Your task to perform on an android device: turn off javascript in the chrome app Image 0: 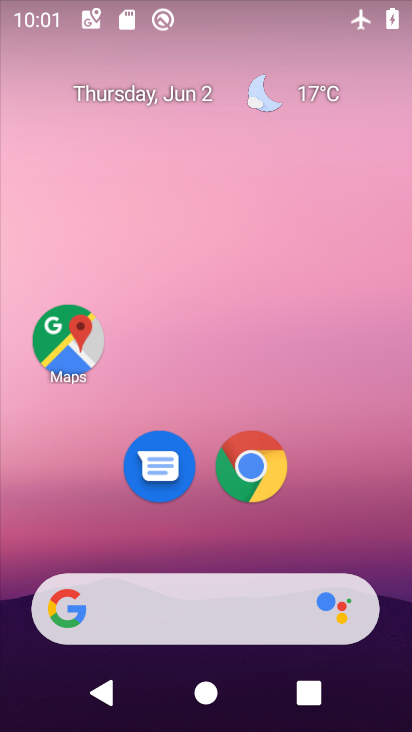
Step 0: click (262, 469)
Your task to perform on an android device: turn off javascript in the chrome app Image 1: 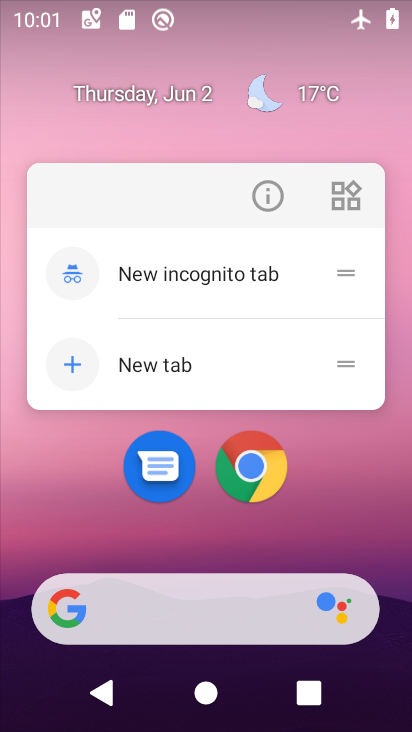
Step 1: click (244, 452)
Your task to perform on an android device: turn off javascript in the chrome app Image 2: 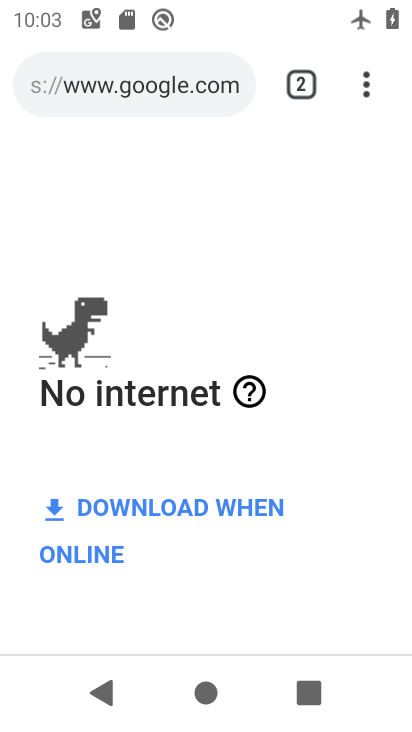
Step 2: click (331, 72)
Your task to perform on an android device: turn off javascript in the chrome app Image 3: 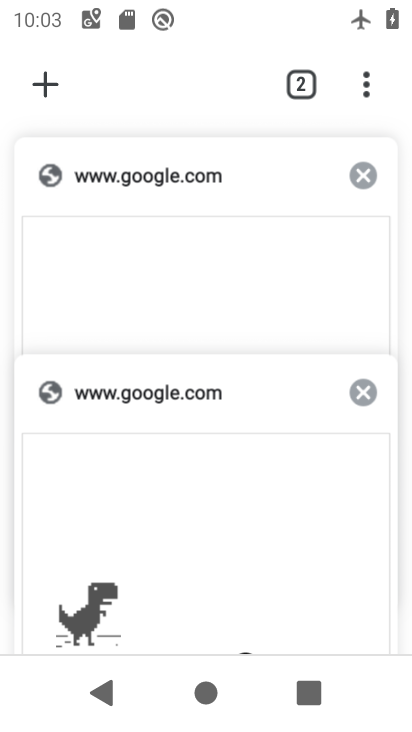
Step 3: click (366, 82)
Your task to perform on an android device: turn off javascript in the chrome app Image 4: 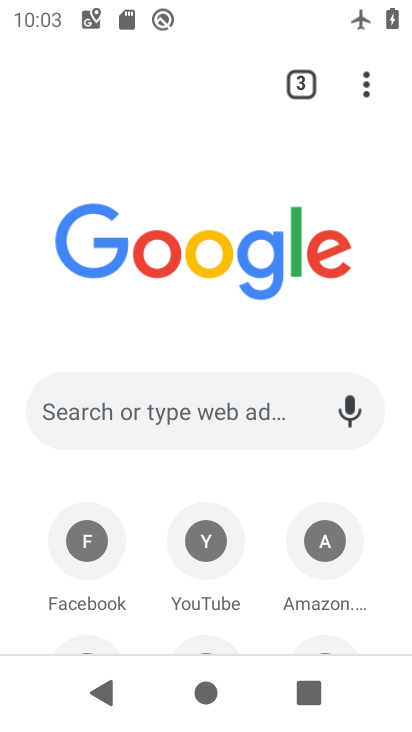
Step 4: click (371, 94)
Your task to perform on an android device: turn off javascript in the chrome app Image 5: 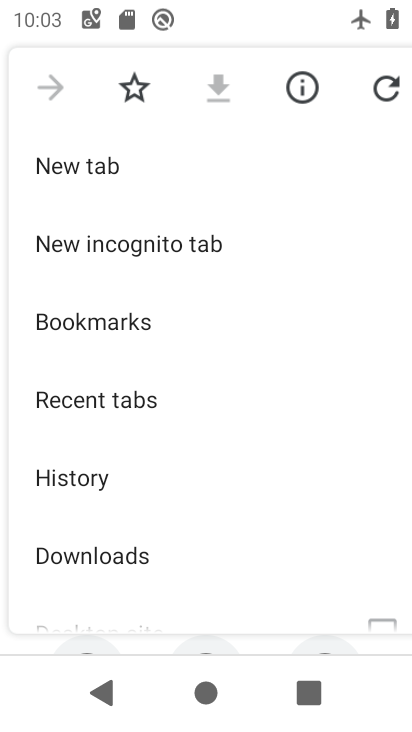
Step 5: drag from (234, 511) to (260, 200)
Your task to perform on an android device: turn off javascript in the chrome app Image 6: 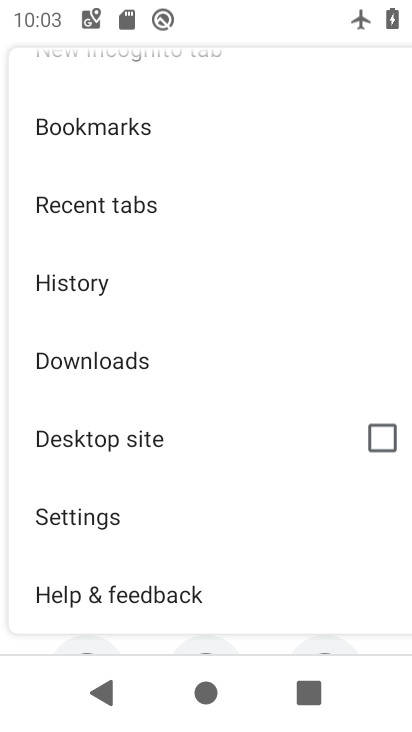
Step 6: click (148, 509)
Your task to perform on an android device: turn off javascript in the chrome app Image 7: 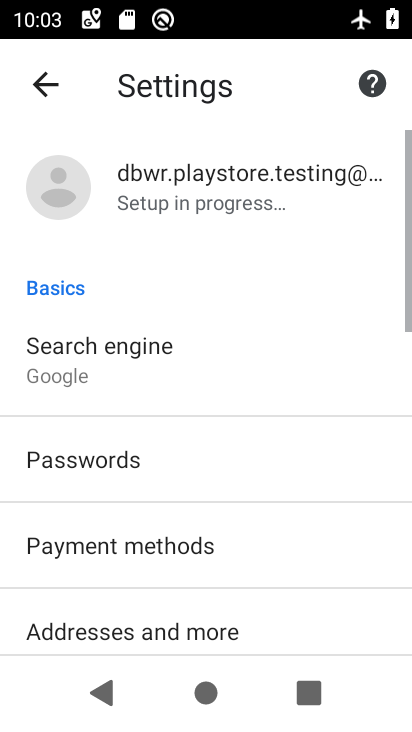
Step 7: drag from (207, 560) to (253, 213)
Your task to perform on an android device: turn off javascript in the chrome app Image 8: 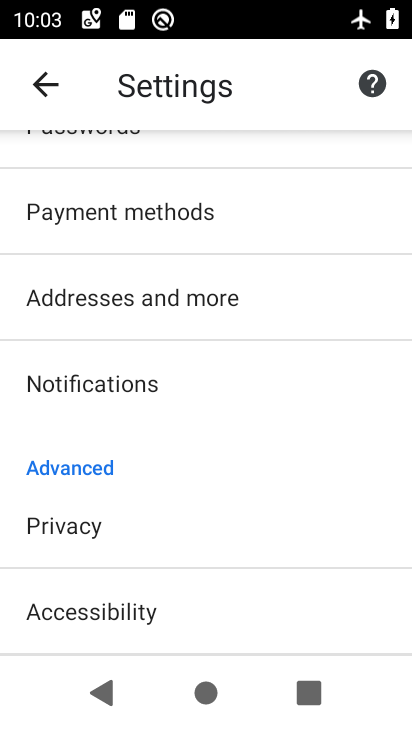
Step 8: drag from (194, 510) to (263, 253)
Your task to perform on an android device: turn off javascript in the chrome app Image 9: 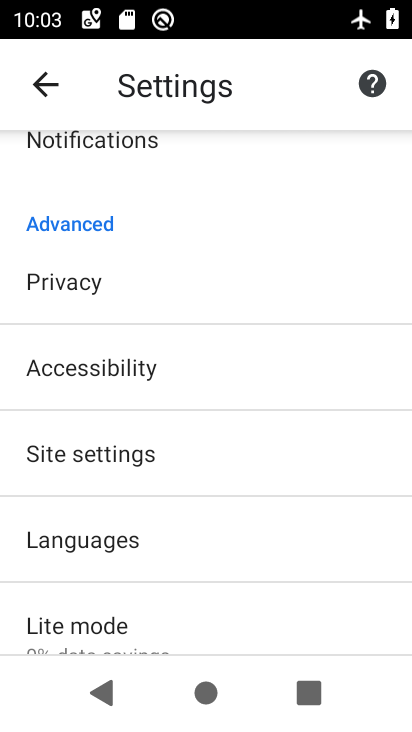
Step 9: click (70, 460)
Your task to perform on an android device: turn off javascript in the chrome app Image 10: 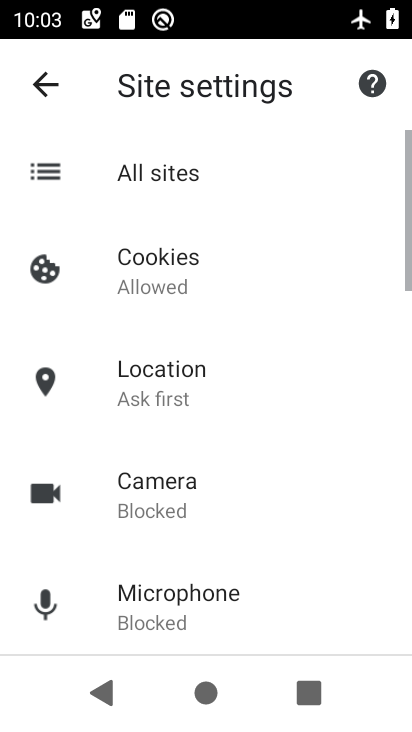
Step 10: drag from (193, 400) to (246, 149)
Your task to perform on an android device: turn off javascript in the chrome app Image 11: 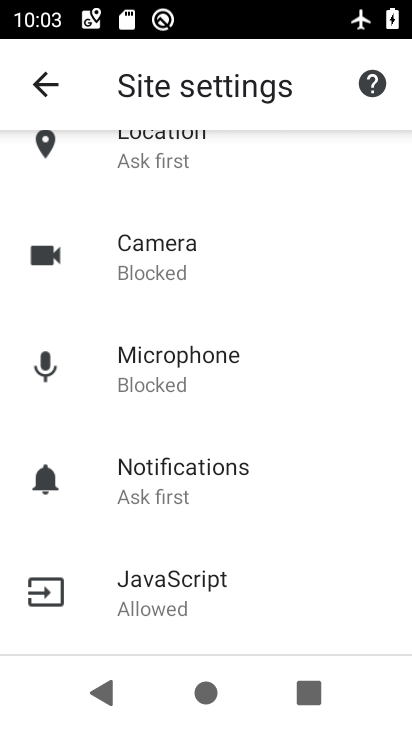
Step 11: click (169, 582)
Your task to perform on an android device: turn off javascript in the chrome app Image 12: 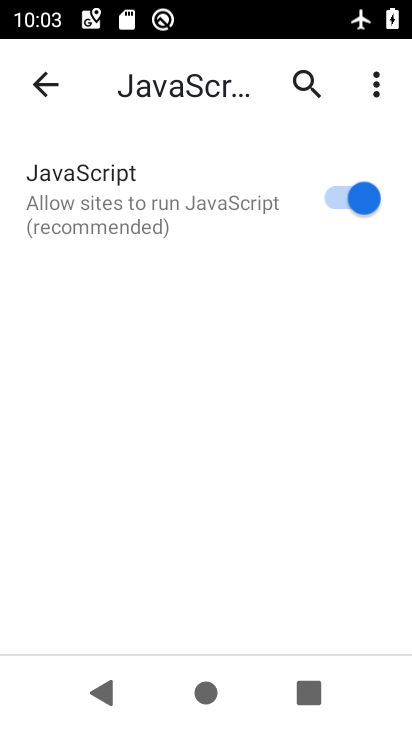
Step 12: click (324, 186)
Your task to perform on an android device: turn off javascript in the chrome app Image 13: 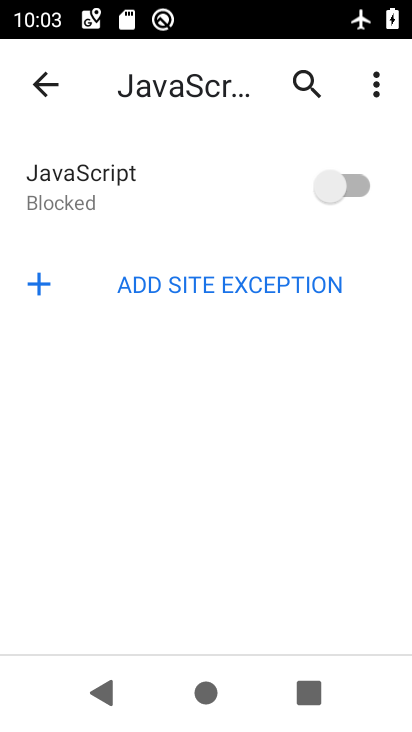
Step 13: task complete